Your task to perform on an android device: Show me popular videos on Youtube Image 0: 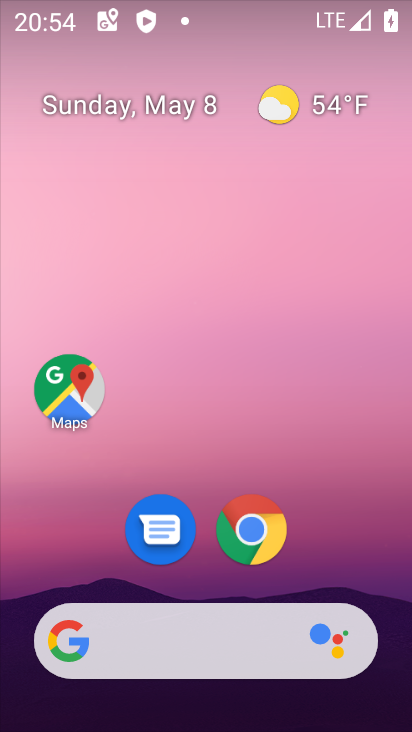
Step 0: drag from (375, 529) to (354, 149)
Your task to perform on an android device: Show me popular videos on Youtube Image 1: 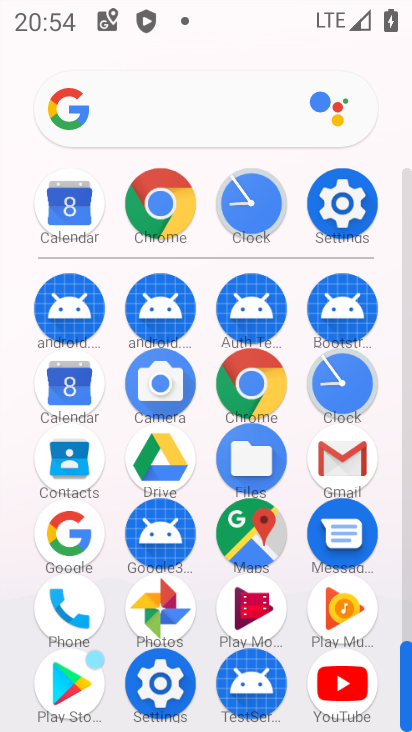
Step 1: click (336, 687)
Your task to perform on an android device: Show me popular videos on Youtube Image 2: 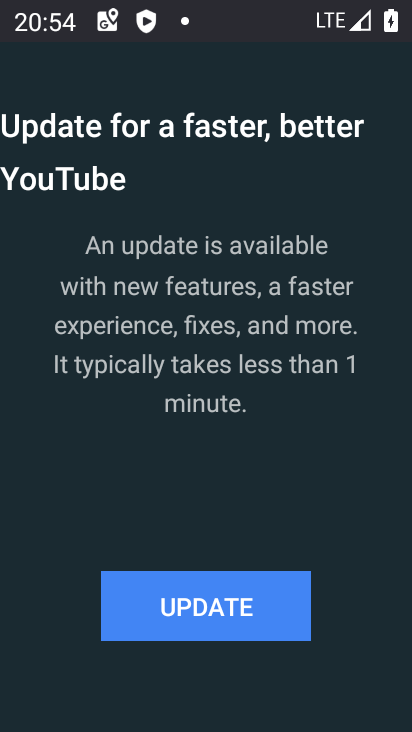
Step 2: click (191, 613)
Your task to perform on an android device: Show me popular videos on Youtube Image 3: 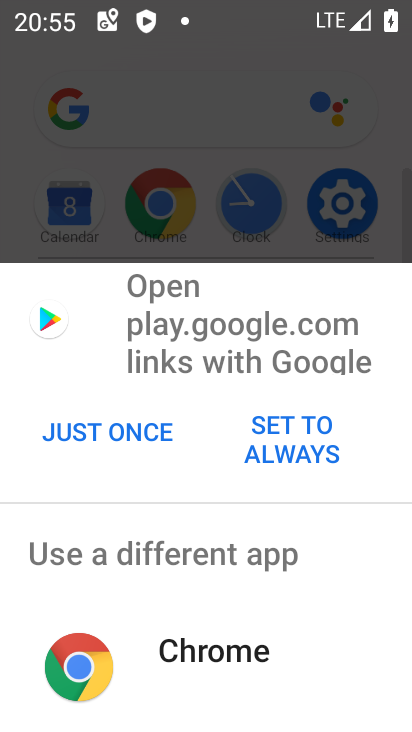
Step 3: click (102, 429)
Your task to perform on an android device: Show me popular videos on Youtube Image 4: 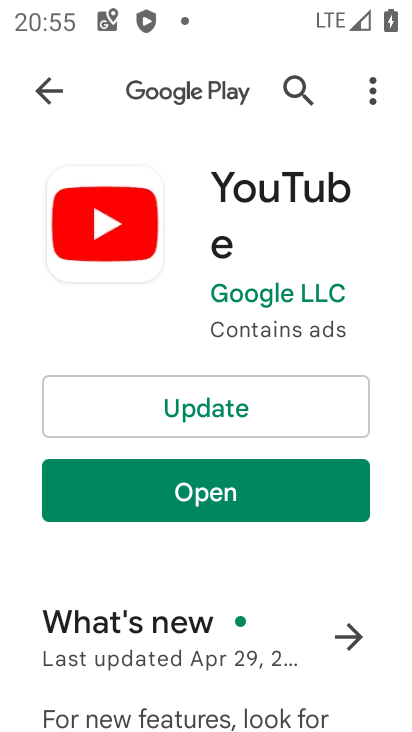
Step 4: click (213, 393)
Your task to perform on an android device: Show me popular videos on Youtube Image 5: 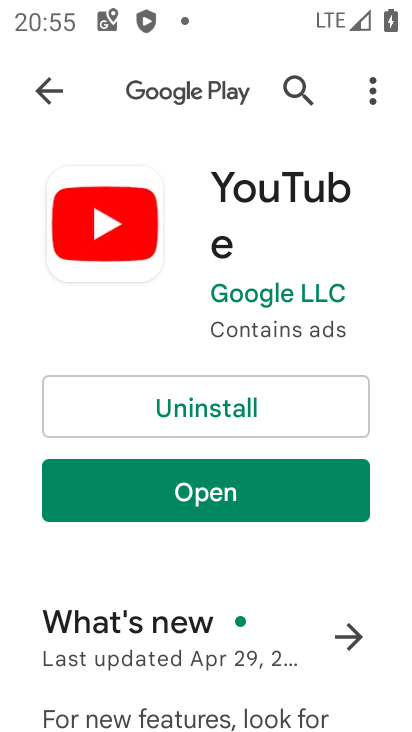
Step 5: click (246, 502)
Your task to perform on an android device: Show me popular videos on Youtube Image 6: 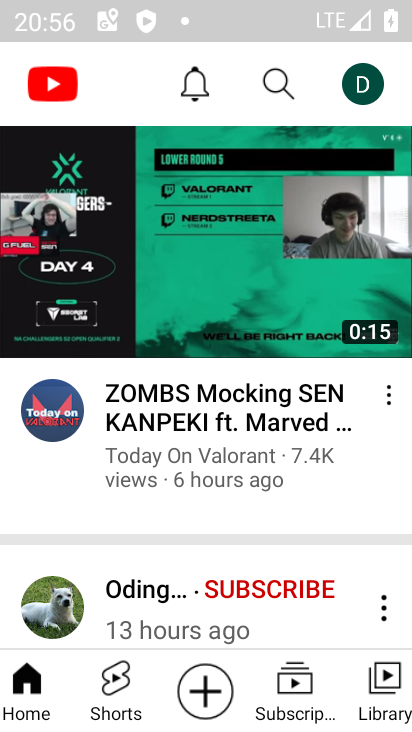
Step 6: drag from (324, 628) to (290, 272)
Your task to perform on an android device: Show me popular videos on Youtube Image 7: 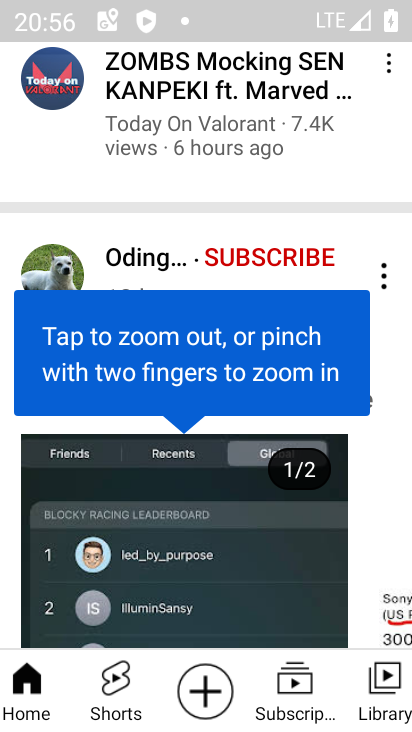
Step 7: drag from (286, 586) to (309, 288)
Your task to perform on an android device: Show me popular videos on Youtube Image 8: 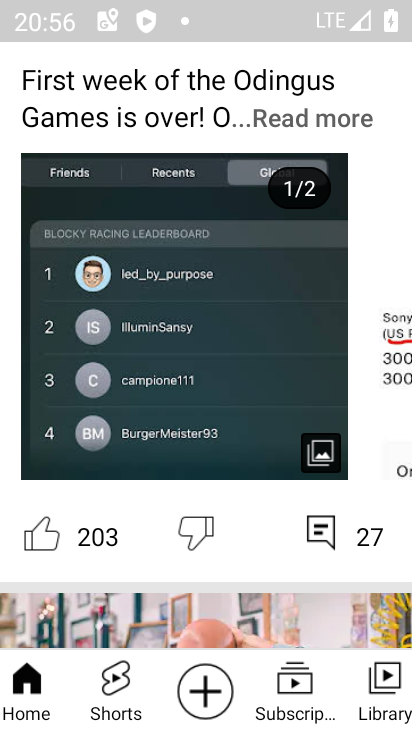
Step 8: drag from (353, 161) to (263, 531)
Your task to perform on an android device: Show me popular videos on Youtube Image 9: 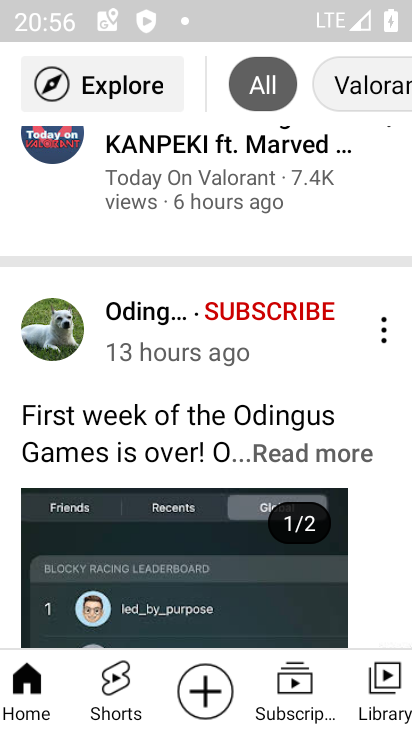
Step 9: drag from (284, 170) to (244, 563)
Your task to perform on an android device: Show me popular videos on Youtube Image 10: 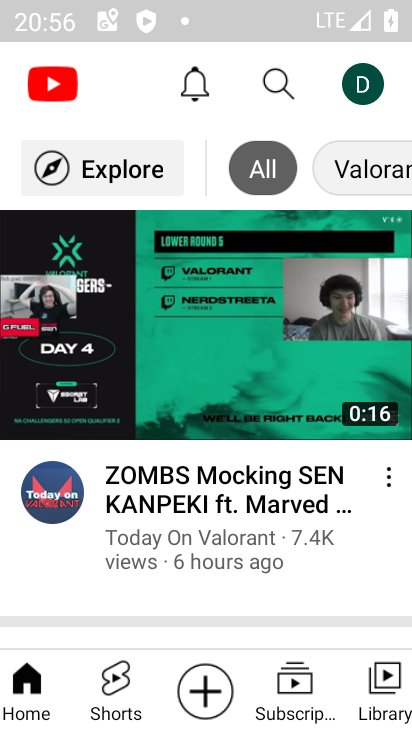
Step 10: click (275, 86)
Your task to perform on an android device: Show me popular videos on Youtube Image 11: 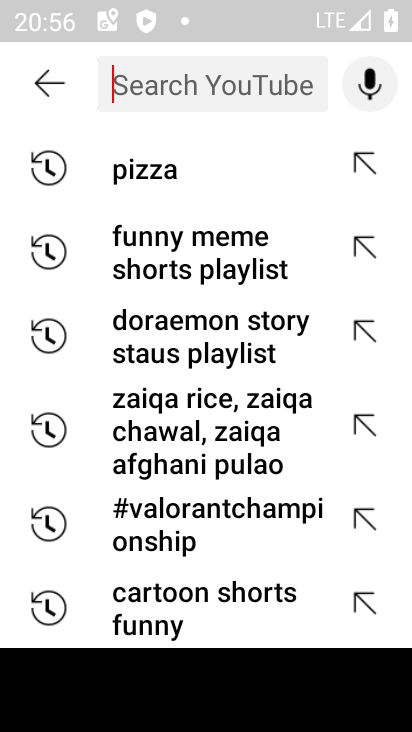
Step 11: type "popular video"
Your task to perform on an android device: Show me popular videos on Youtube Image 12: 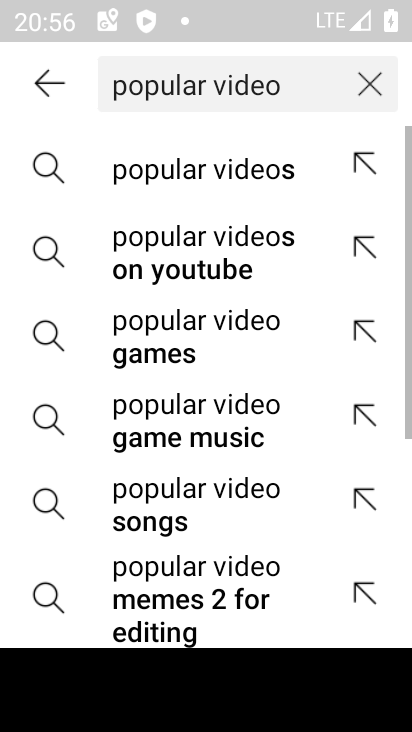
Step 12: click (244, 169)
Your task to perform on an android device: Show me popular videos on Youtube Image 13: 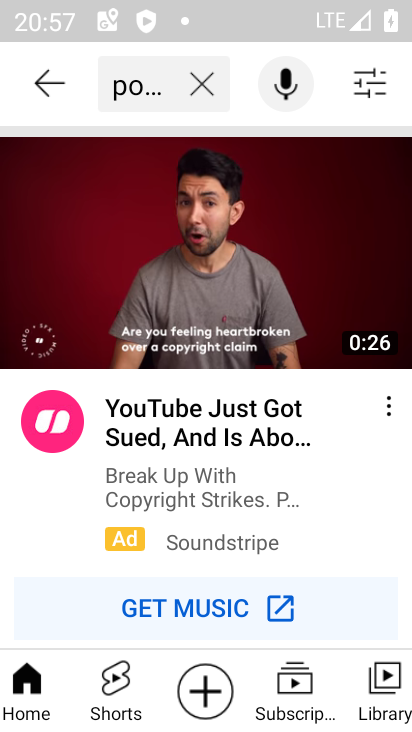
Step 13: task complete